Your task to perform on an android device: Open accessibility settings Image 0: 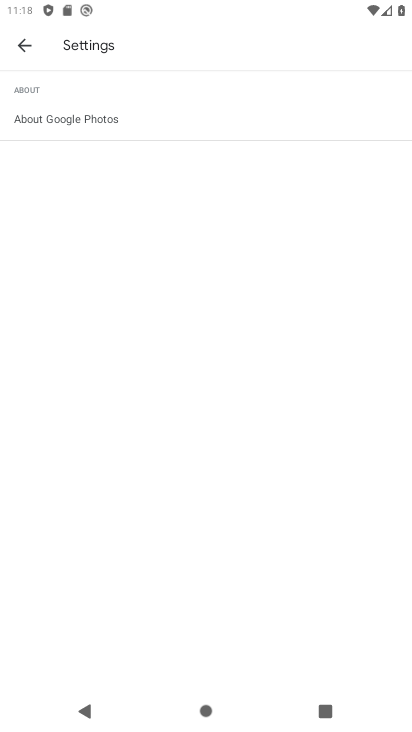
Step 0: press back button
Your task to perform on an android device: Open accessibility settings Image 1: 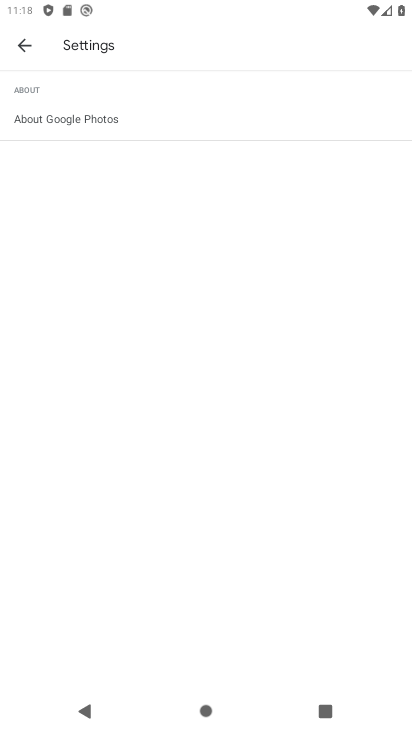
Step 1: press back button
Your task to perform on an android device: Open accessibility settings Image 2: 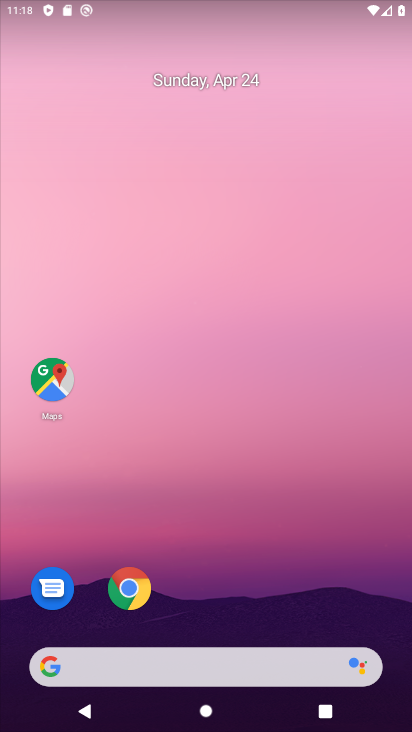
Step 2: drag from (275, 582) to (365, 39)
Your task to perform on an android device: Open accessibility settings Image 3: 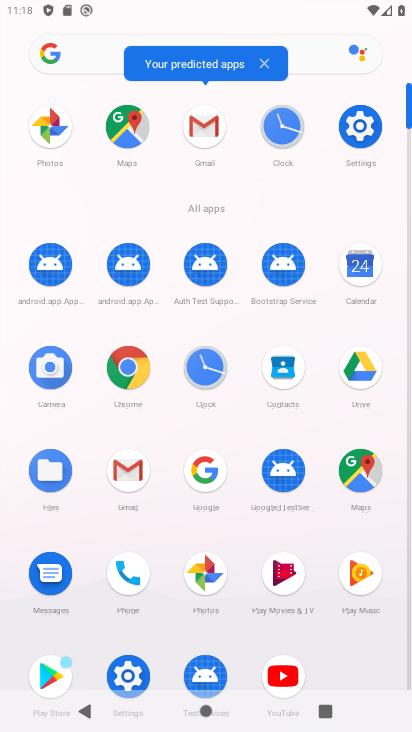
Step 3: click (123, 678)
Your task to perform on an android device: Open accessibility settings Image 4: 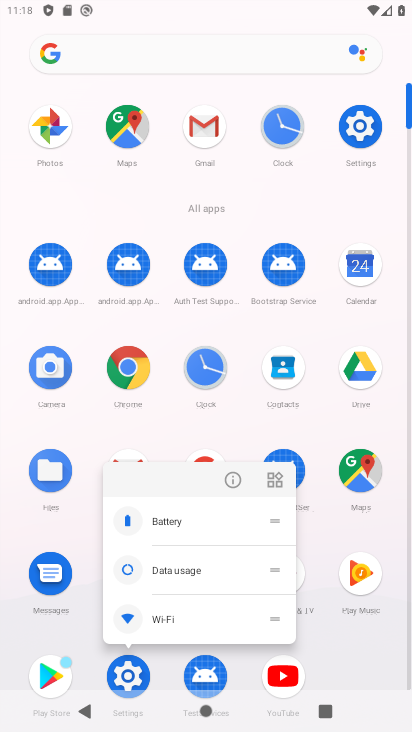
Step 4: click (135, 674)
Your task to perform on an android device: Open accessibility settings Image 5: 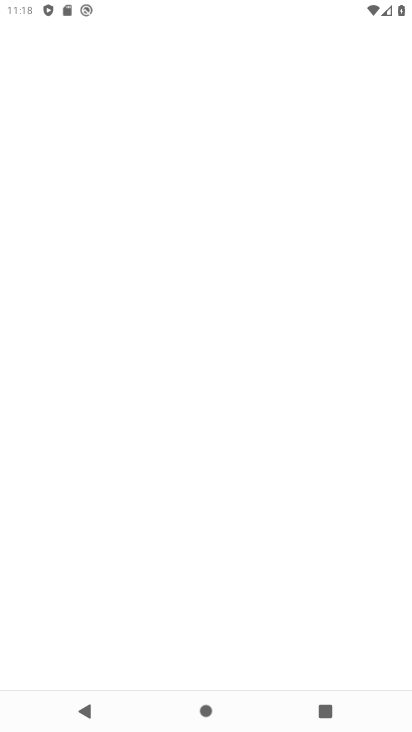
Step 5: click (129, 676)
Your task to perform on an android device: Open accessibility settings Image 6: 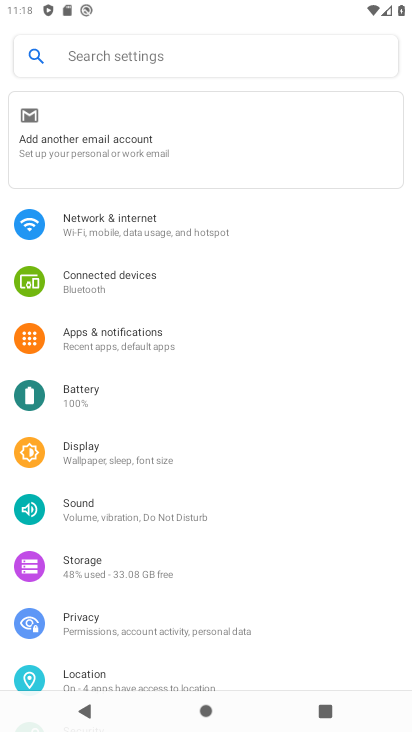
Step 6: drag from (137, 635) to (216, 24)
Your task to perform on an android device: Open accessibility settings Image 7: 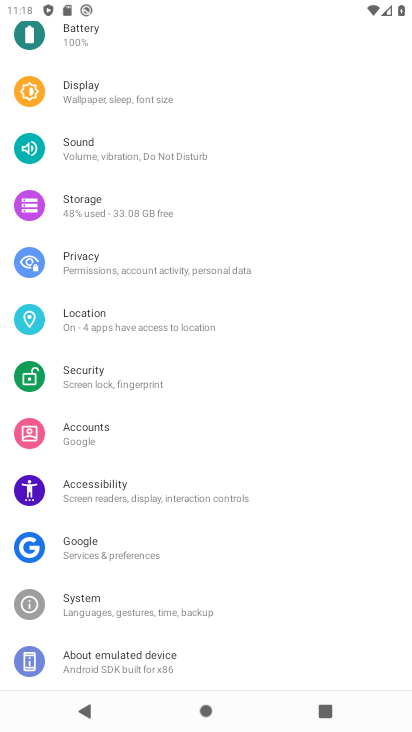
Step 7: click (134, 478)
Your task to perform on an android device: Open accessibility settings Image 8: 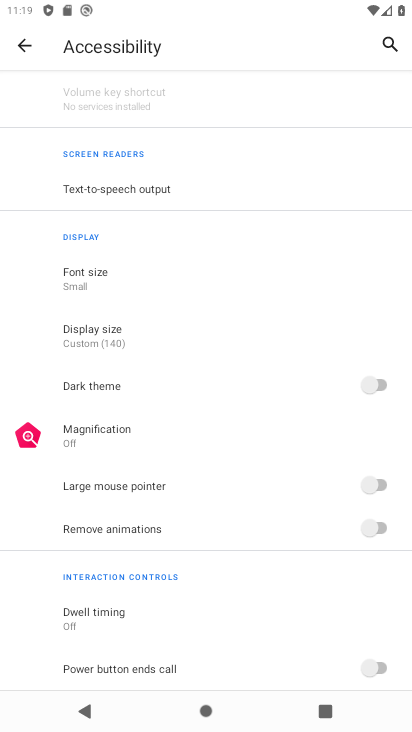
Step 8: task complete